Your task to perform on an android device: open device folders in google photos Image 0: 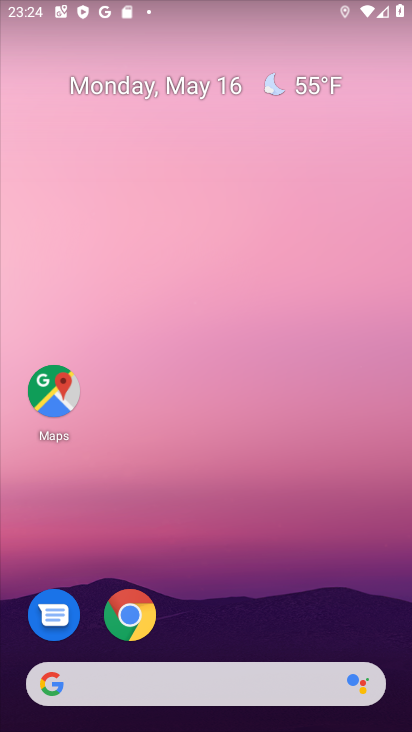
Step 0: drag from (181, 638) to (144, 8)
Your task to perform on an android device: open device folders in google photos Image 1: 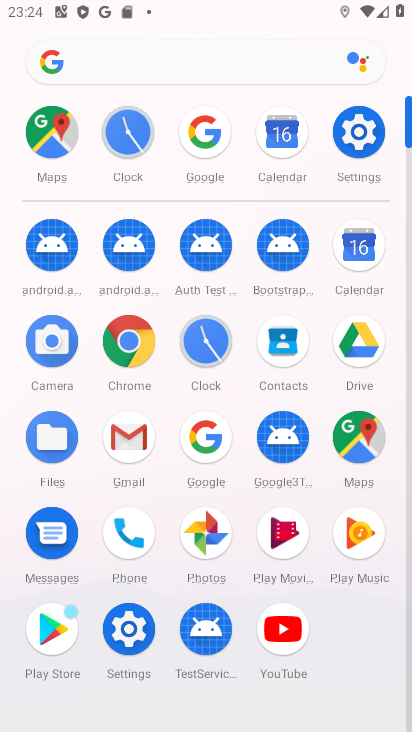
Step 1: click (206, 532)
Your task to perform on an android device: open device folders in google photos Image 2: 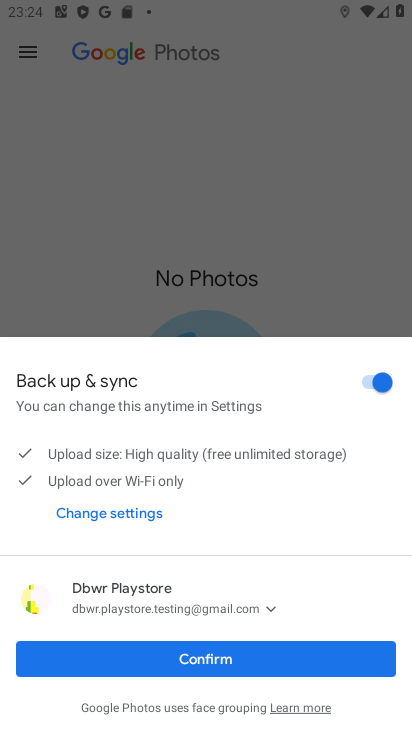
Step 2: click (251, 667)
Your task to perform on an android device: open device folders in google photos Image 3: 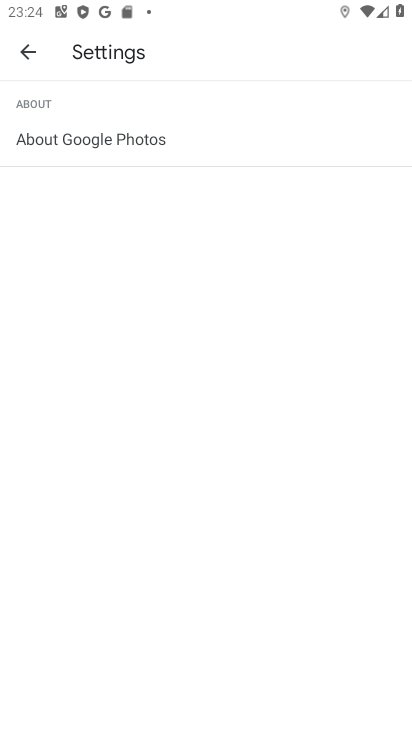
Step 3: click (29, 54)
Your task to perform on an android device: open device folders in google photos Image 4: 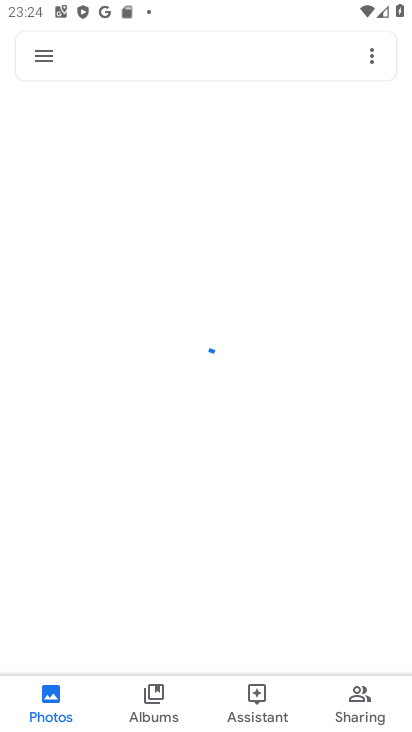
Step 4: click (29, 54)
Your task to perform on an android device: open device folders in google photos Image 5: 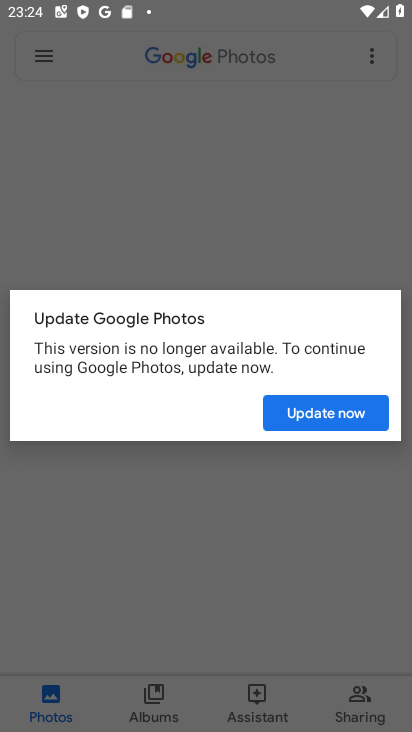
Step 5: click (288, 410)
Your task to perform on an android device: open device folders in google photos Image 6: 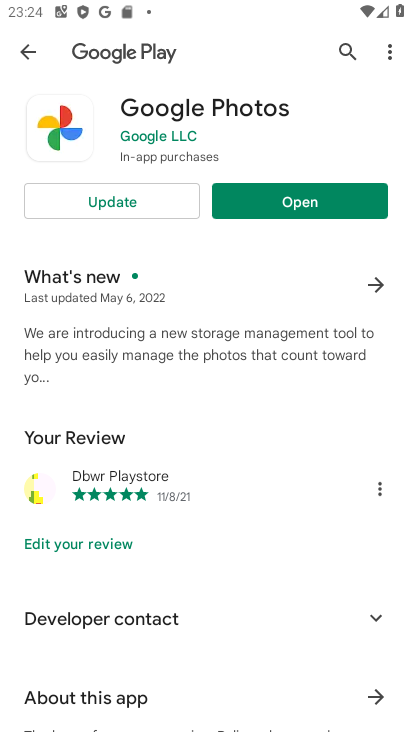
Step 6: click (257, 203)
Your task to perform on an android device: open device folders in google photos Image 7: 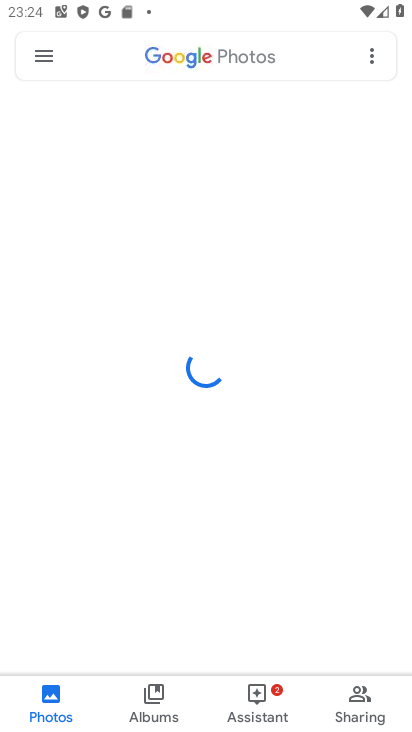
Step 7: click (55, 58)
Your task to perform on an android device: open device folders in google photos Image 8: 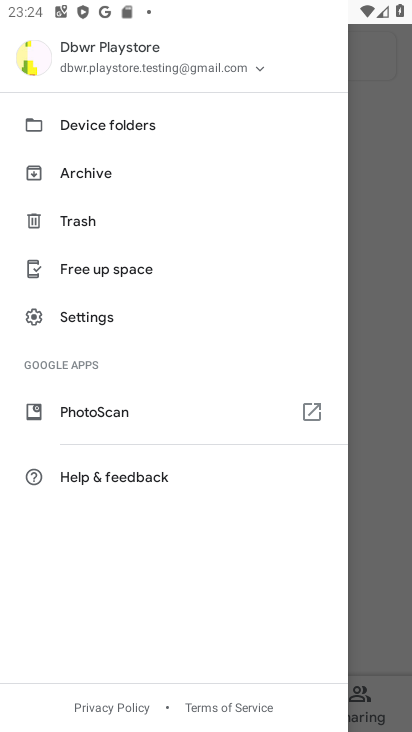
Step 8: click (73, 120)
Your task to perform on an android device: open device folders in google photos Image 9: 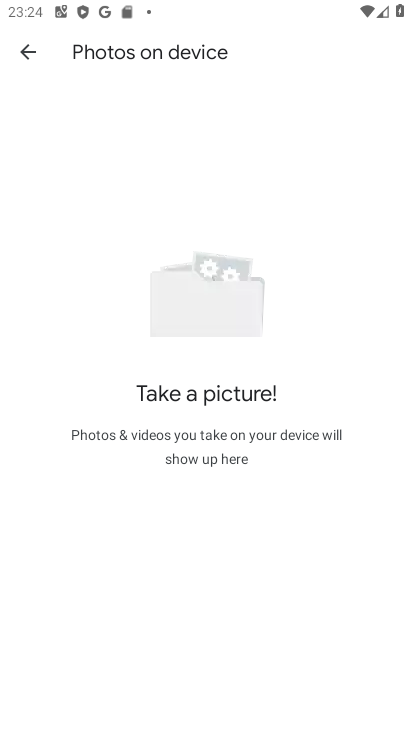
Step 9: task complete